Your task to perform on an android device: turn off location history Image 0: 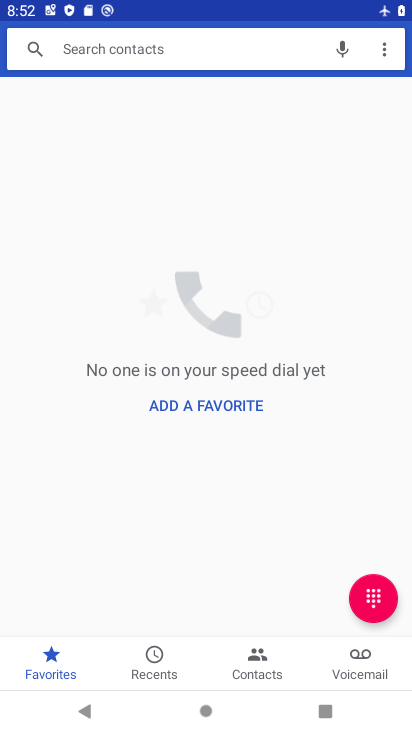
Step 0: press home button
Your task to perform on an android device: turn off location history Image 1: 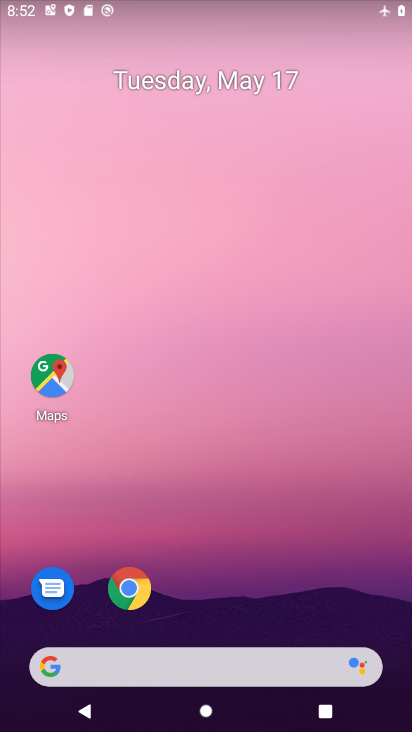
Step 1: drag from (389, 682) to (359, 274)
Your task to perform on an android device: turn off location history Image 2: 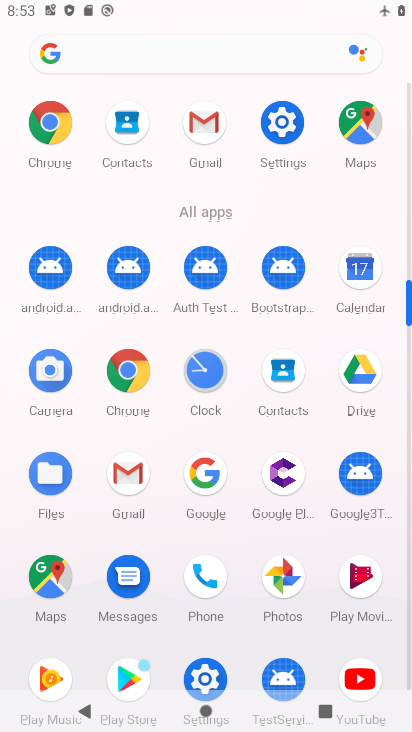
Step 2: click (198, 678)
Your task to perform on an android device: turn off location history Image 3: 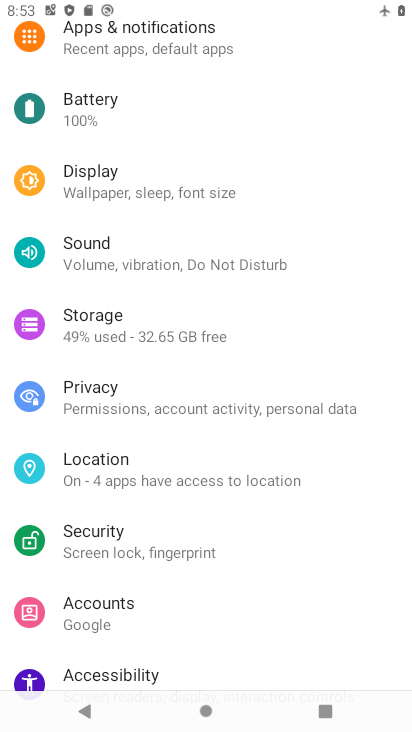
Step 3: click (110, 466)
Your task to perform on an android device: turn off location history Image 4: 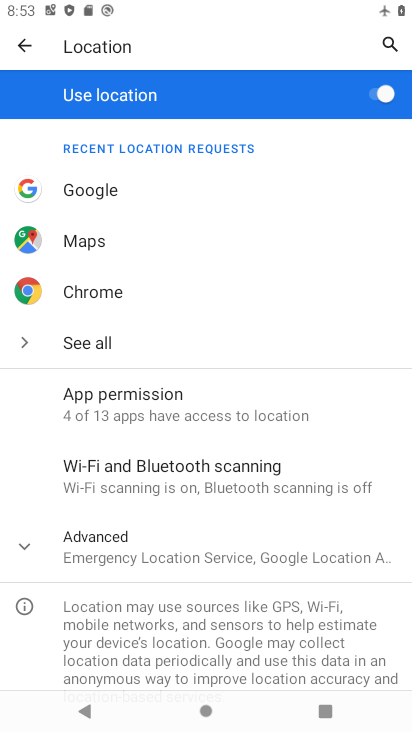
Step 4: click (19, 546)
Your task to perform on an android device: turn off location history Image 5: 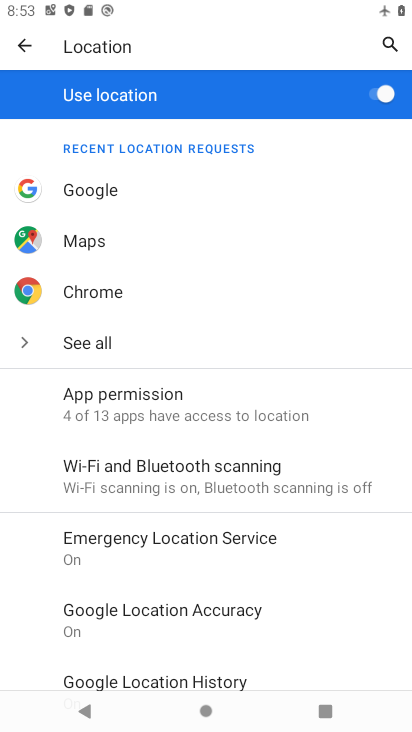
Step 5: drag from (296, 659) to (279, 469)
Your task to perform on an android device: turn off location history Image 6: 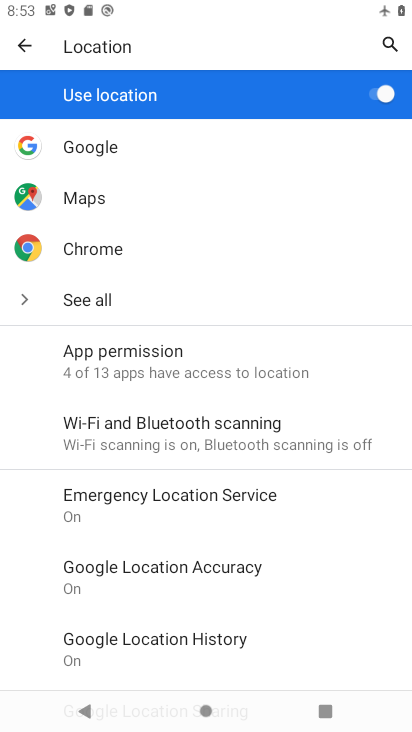
Step 6: click (94, 639)
Your task to perform on an android device: turn off location history Image 7: 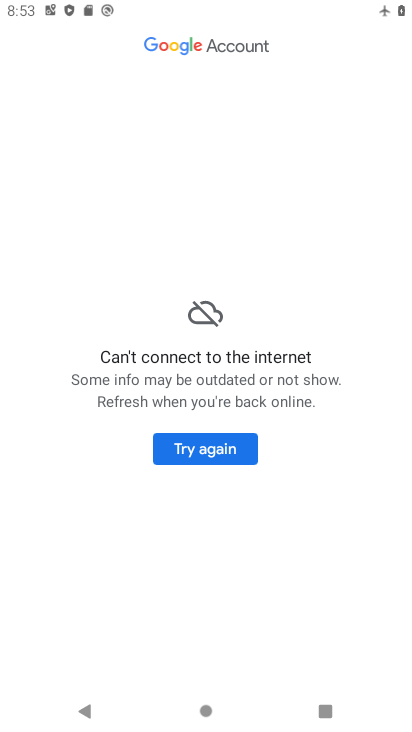
Step 7: task complete